Your task to perform on an android device: Go to eBay Image 0: 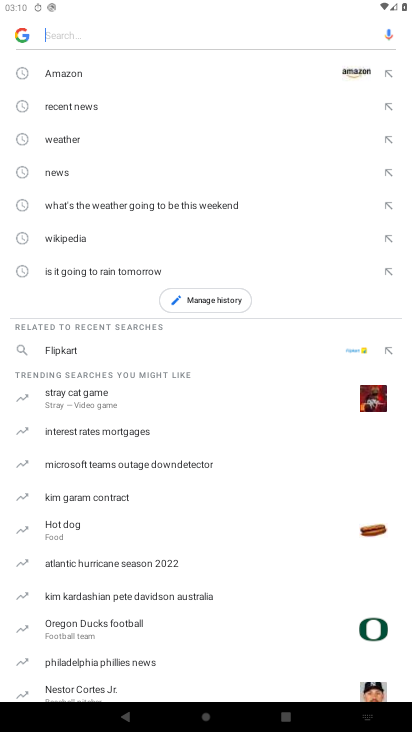
Step 0: press home button
Your task to perform on an android device: Go to eBay Image 1: 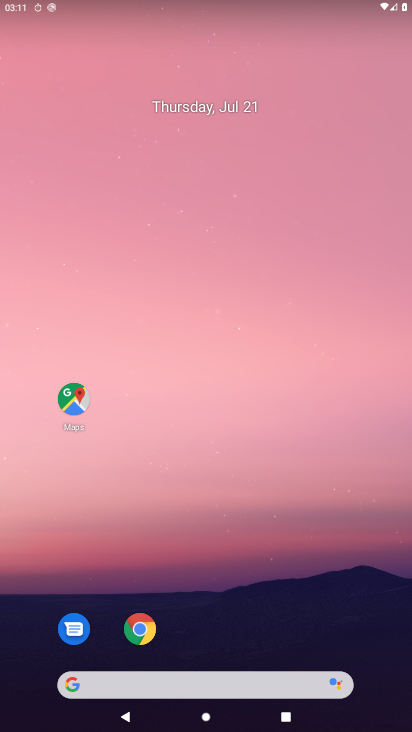
Step 1: click (102, 679)
Your task to perform on an android device: Go to eBay Image 2: 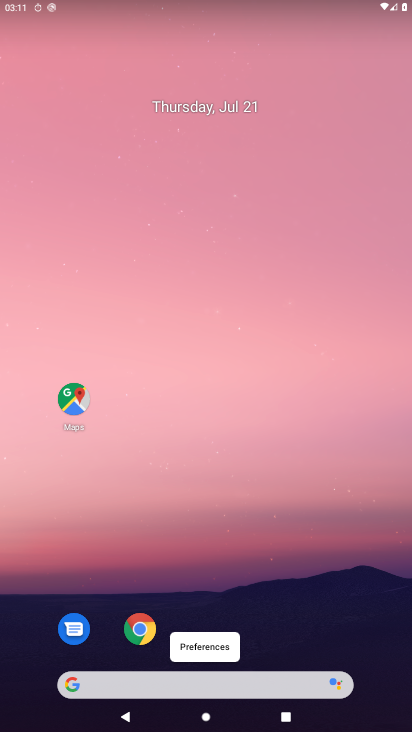
Step 2: click (121, 688)
Your task to perform on an android device: Go to eBay Image 3: 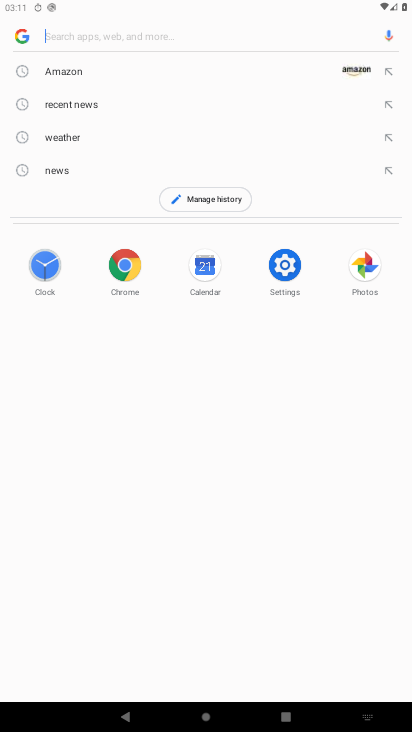
Step 3: type "eBay"
Your task to perform on an android device: Go to eBay Image 4: 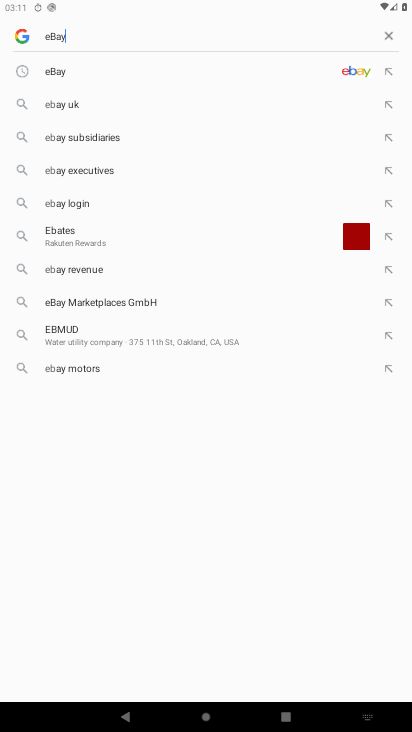
Step 4: type ""
Your task to perform on an android device: Go to eBay Image 5: 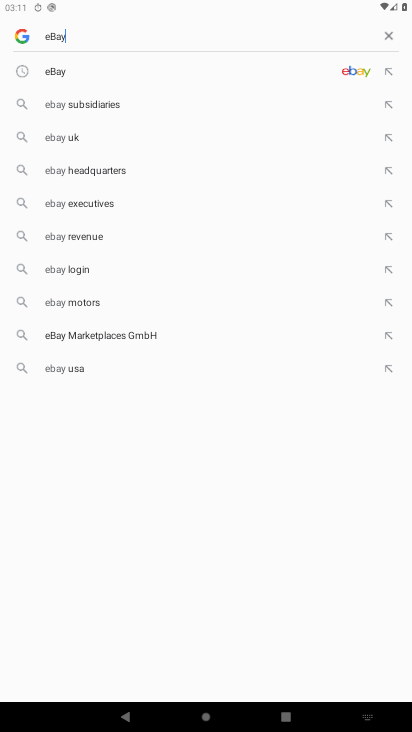
Step 5: click (54, 74)
Your task to perform on an android device: Go to eBay Image 6: 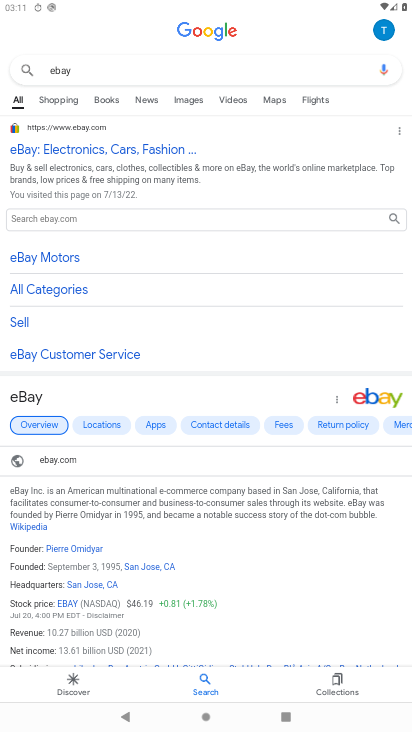
Step 6: task complete